Your task to perform on an android device: find which apps use the phone's location Image 0: 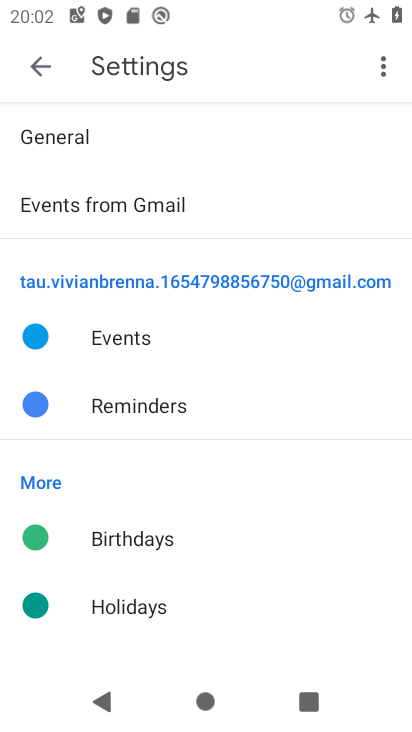
Step 0: press home button
Your task to perform on an android device: find which apps use the phone's location Image 1: 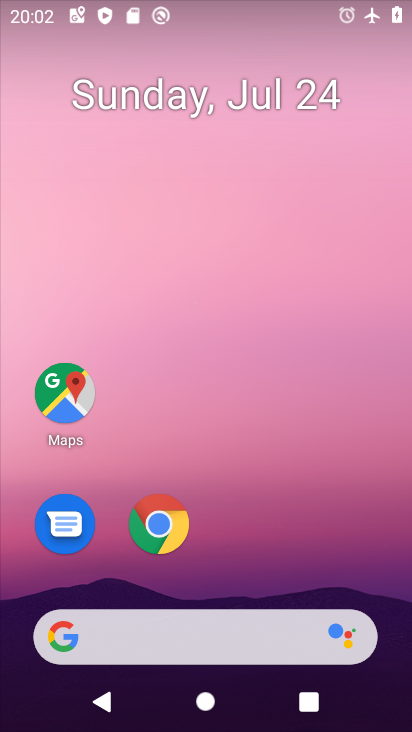
Step 1: drag from (295, 527) to (334, 11)
Your task to perform on an android device: find which apps use the phone's location Image 2: 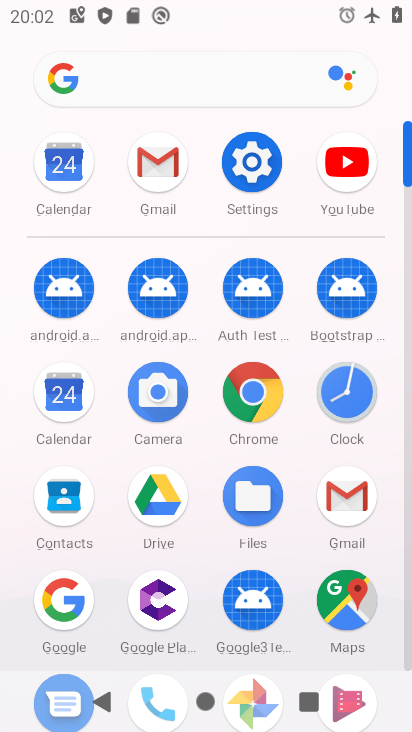
Step 2: click (254, 171)
Your task to perform on an android device: find which apps use the phone's location Image 3: 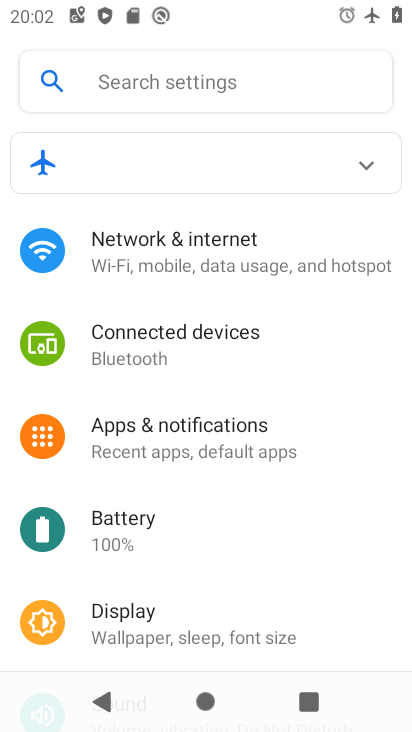
Step 3: drag from (212, 605) to (212, 194)
Your task to perform on an android device: find which apps use the phone's location Image 4: 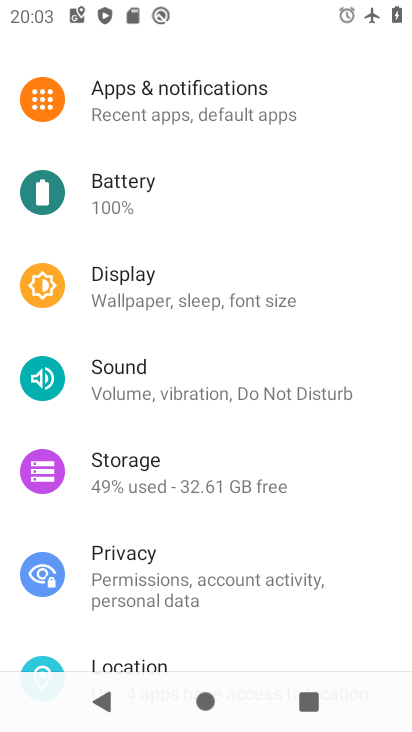
Step 4: drag from (234, 615) to (248, 312)
Your task to perform on an android device: find which apps use the phone's location Image 5: 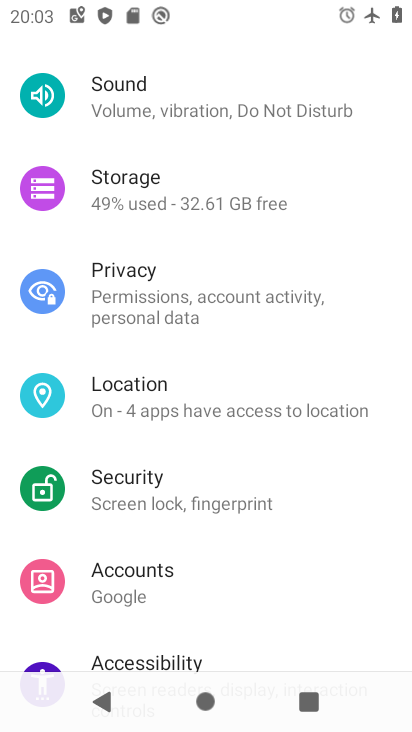
Step 5: click (237, 395)
Your task to perform on an android device: find which apps use the phone's location Image 6: 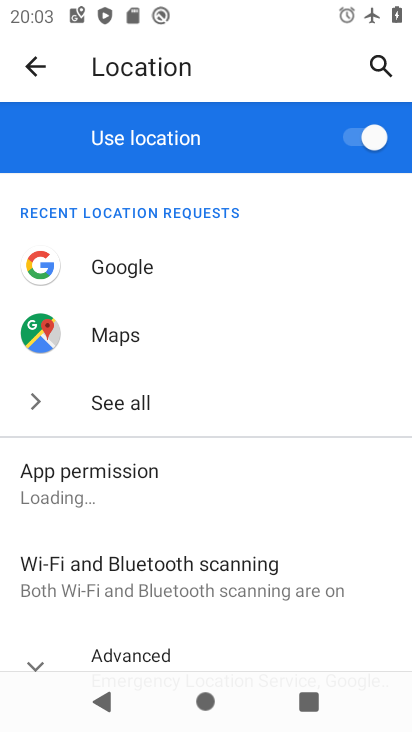
Step 6: click (151, 482)
Your task to perform on an android device: find which apps use the phone's location Image 7: 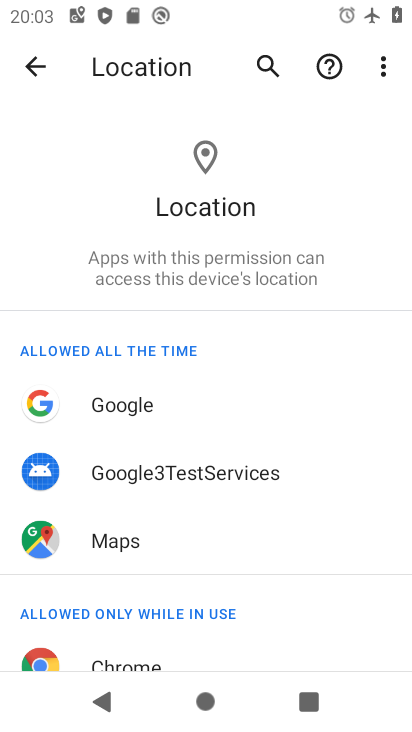
Step 7: task complete